Your task to perform on an android device: change the clock display to analog Image 0: 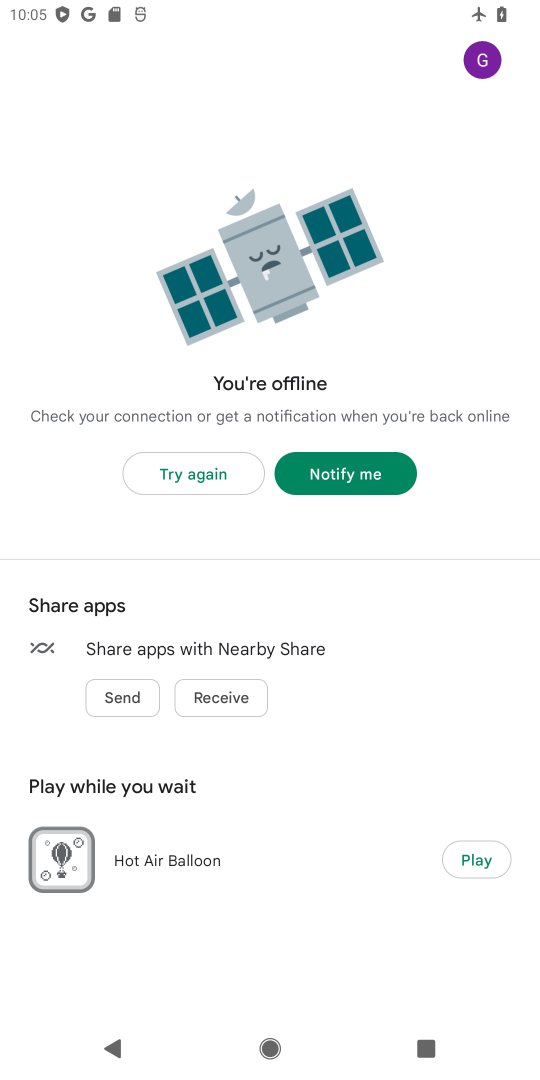
Step 0: press home button
Your task to perform on an android device: change the clock display to analog Image 1: 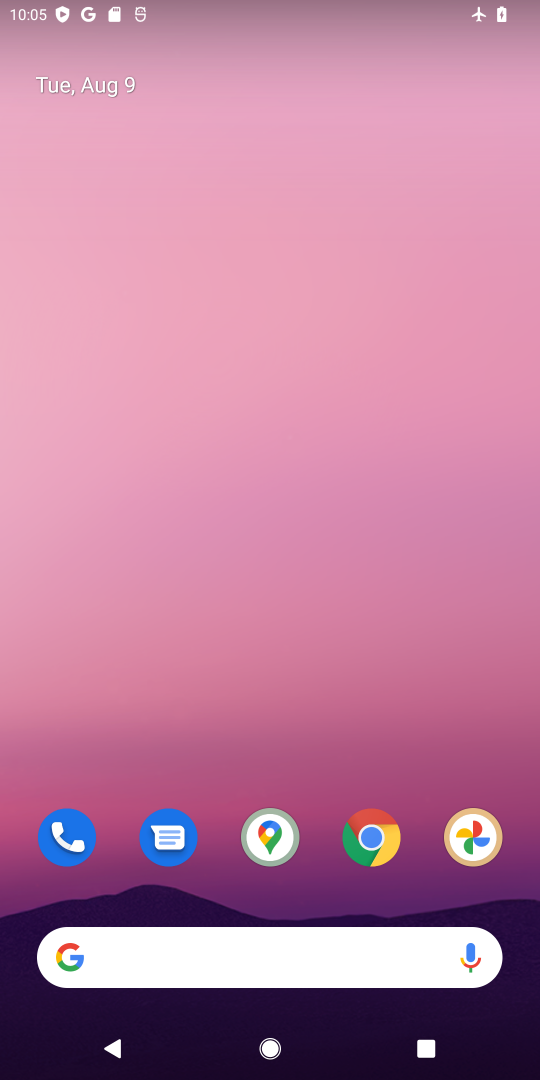
Step 1: drag from (314, 781) to (314, 365)
Your task to perform on an android device: change the clock display to analog Image 2: 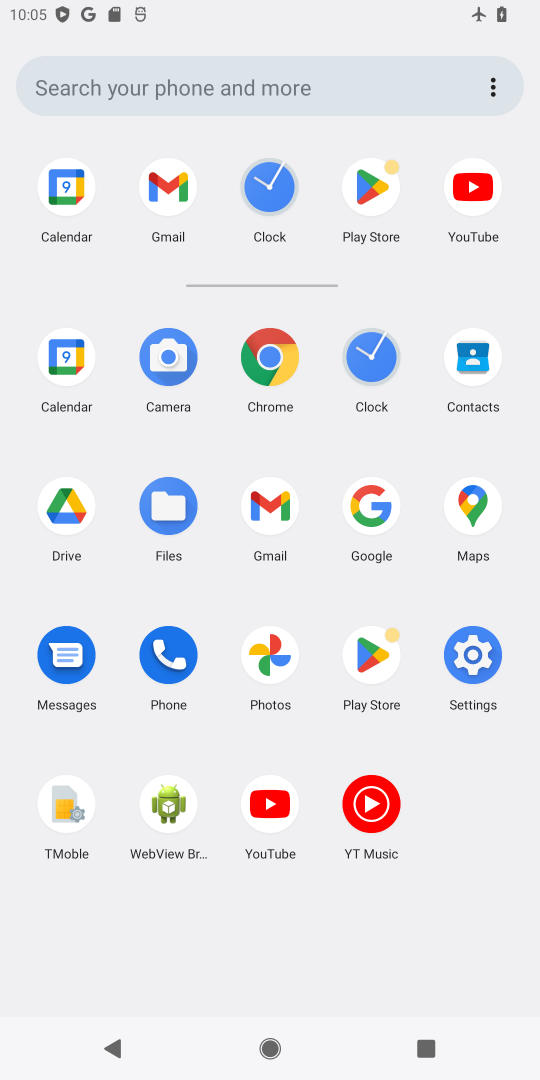
Step 2: click (374, 365)
Your task to perform on an android device: change the clock display to analog Image 3: 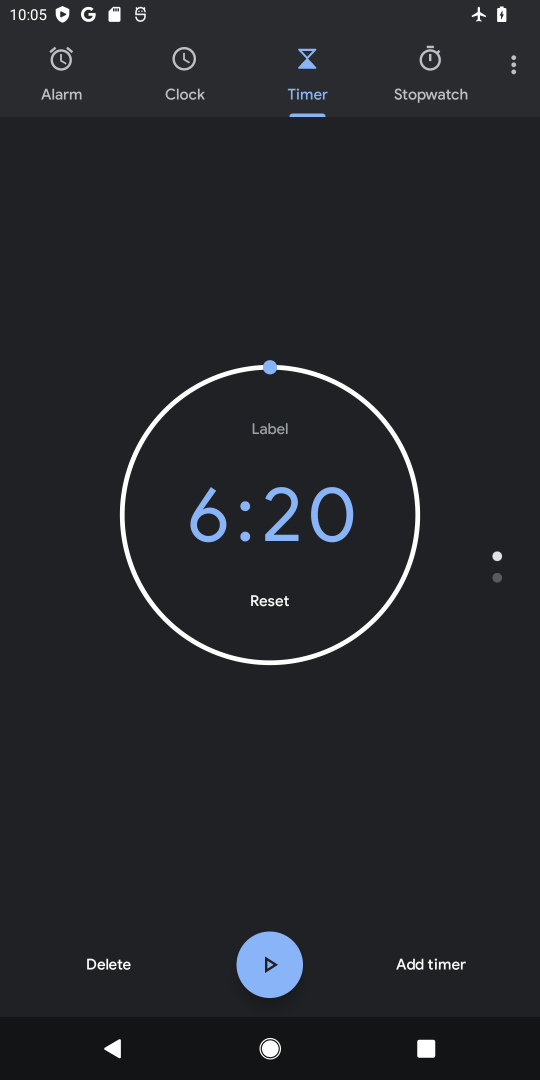
Step 3: click (513, 74)
Your task to perform on an android device: change the clock display to analog Image 4: 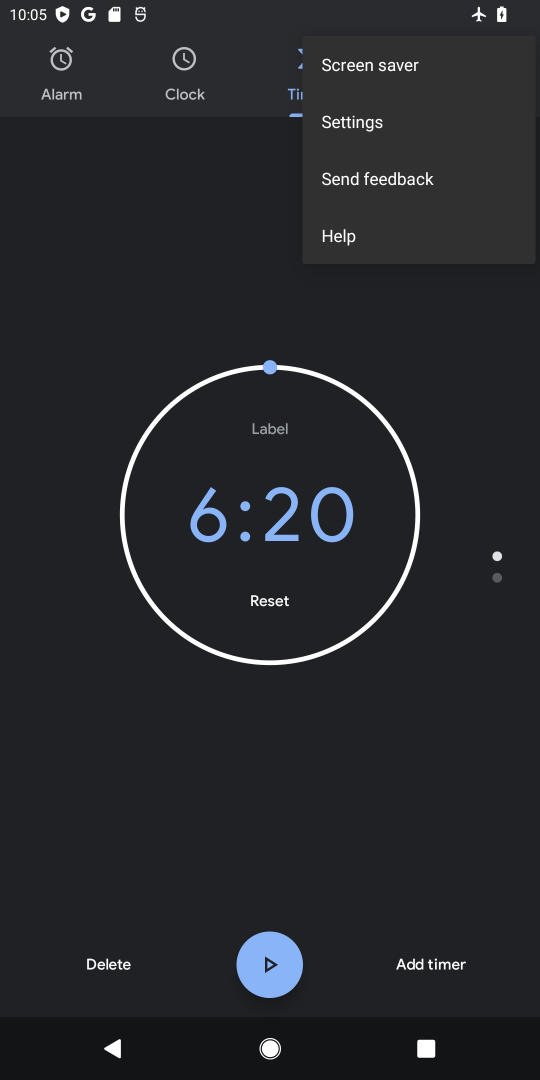
Step 4: click (345, 124)
Your task to perform on an android device: change the clock display to analog Image 5: 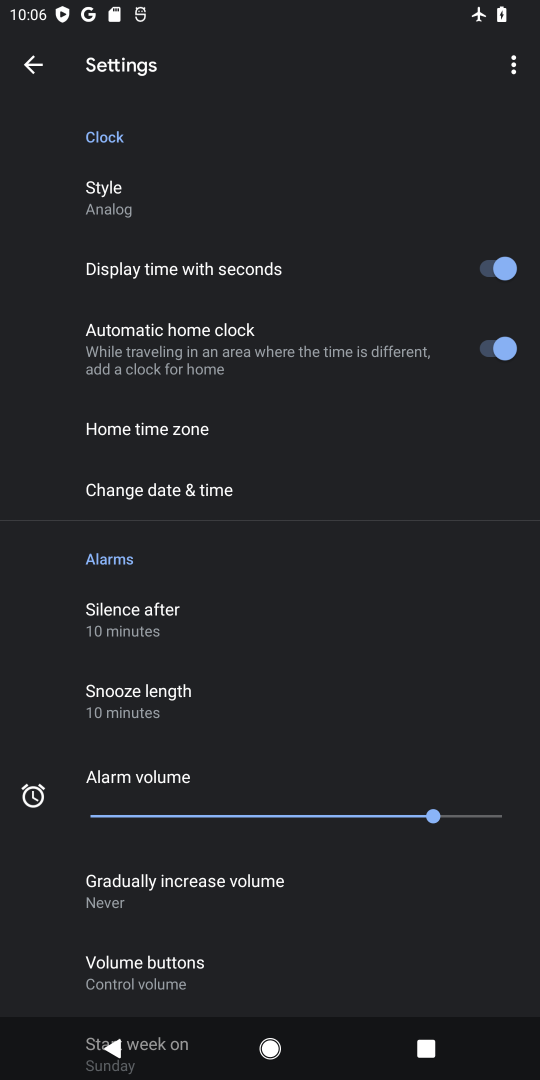
Step 5: task complete